Your task to perform on an android device: Show me recent news Image 0: 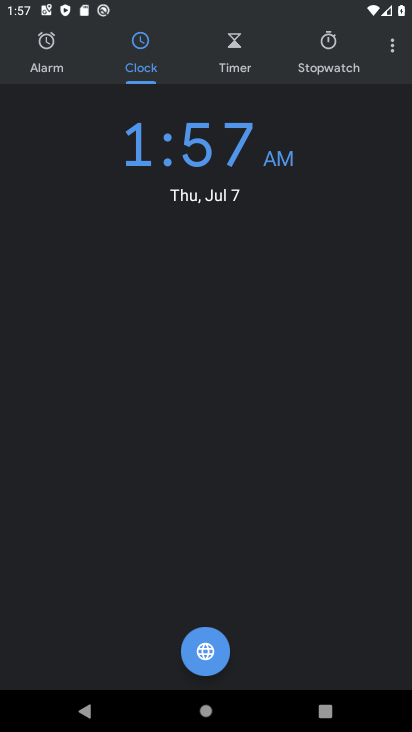
Step 0: press home button
Your task to perform on an android device: Show me recent news Image 1: 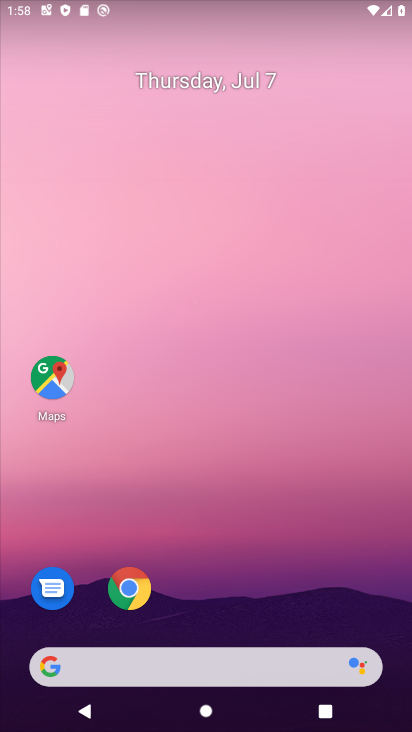
Step 1: click (79, 663)
Your task to perform on an android device: Show me recent news Image 2: 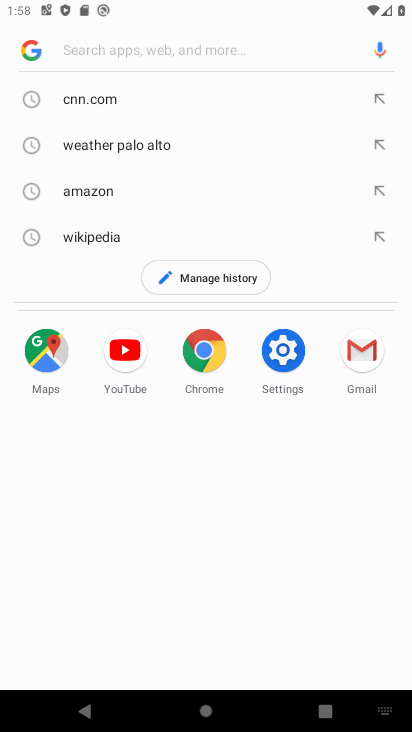
Step 2: click (85, 49)
Your task to perform on an android device: Show me recent news Image 3: 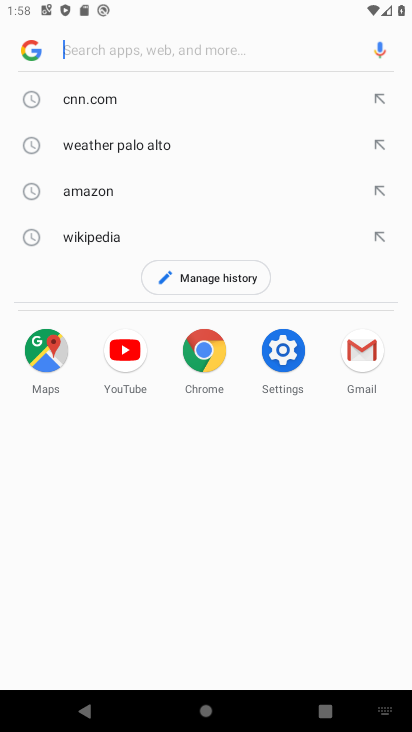
Step 3: type "  "
Your task to perform on an android device: Show me recent news Image 4: 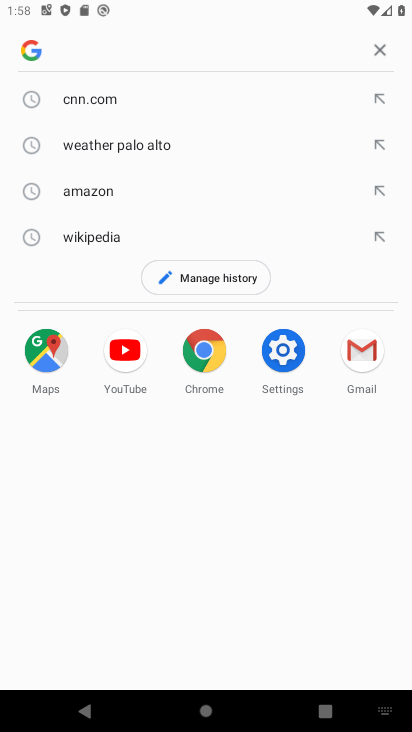
Step 4: type "Show me recent news"
Your task to perform on an android device: Show me recent news Image 5: 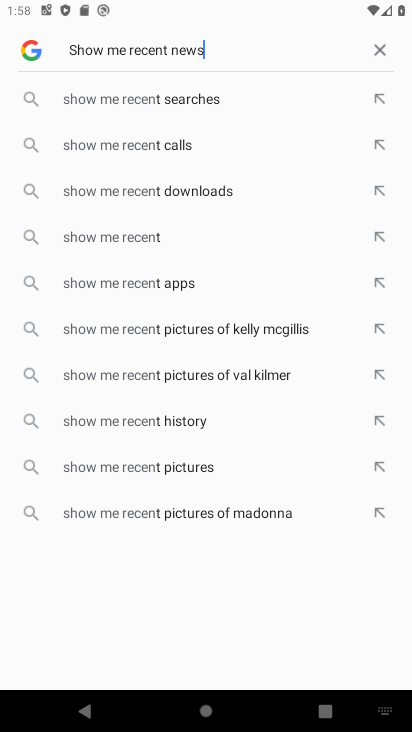
Step 5: type ""
Your task to perform on an android device: Show me recent news Image 6: 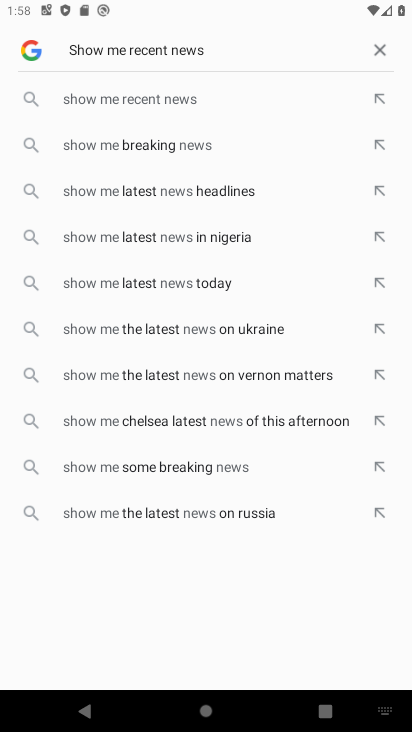
Step 6: click (173, 95)
Your task to perform on an android device: Show me recent news Image 7: 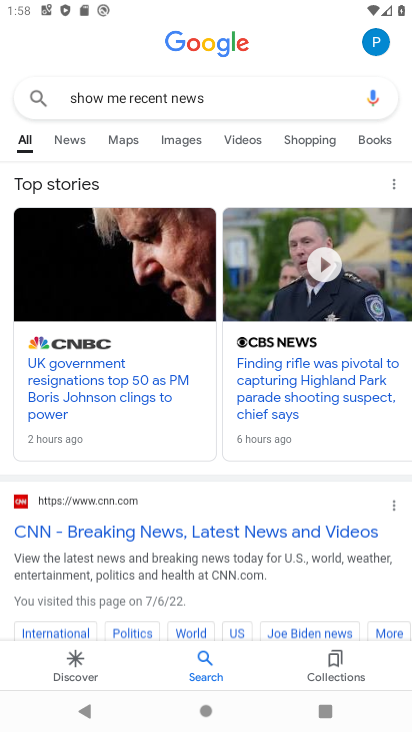
Step 7: task complete